Your task to perform on an android device: Go to display settings Image 0: 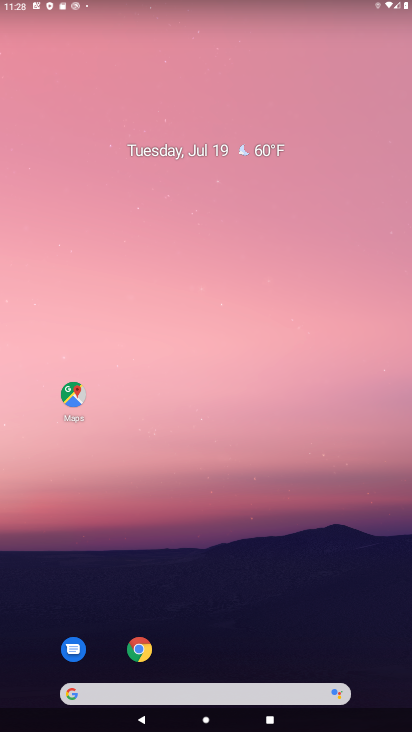
Step 0: drag from (191, 697) to (191, 417)
Your task to perform on an android device: Go to display settings Image 1: 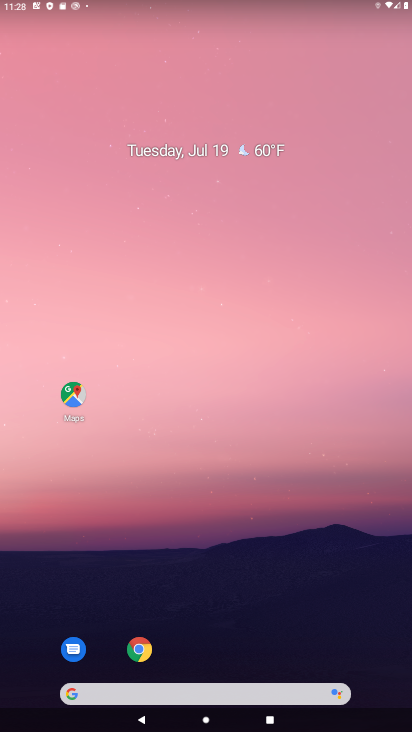
Step 1: drag from (209, 691) to (216, 361)
Your task to perform on an android device: Go to display settings Image 2: 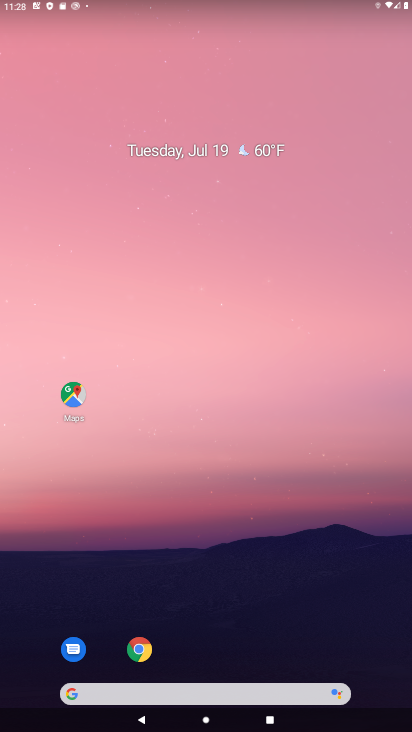
Step 2: drag from (193, 692) to (194, 386)
Your task to perform on an android device: Go to display settings Image 3: 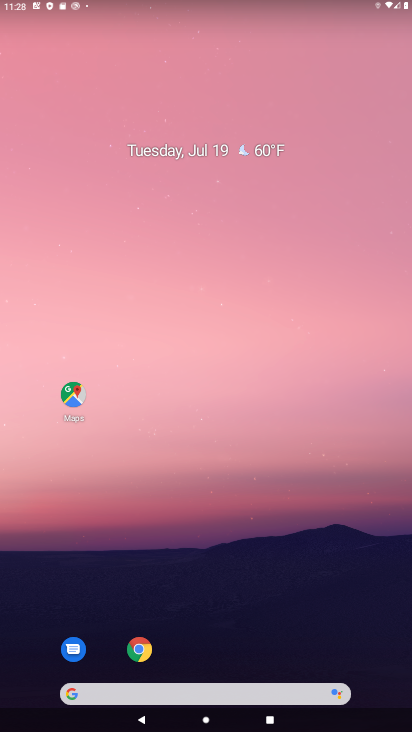
Step 3: drag from (201, 685) to (174, 355)
Your task to perform on an android device: Go to display settings Image 4: 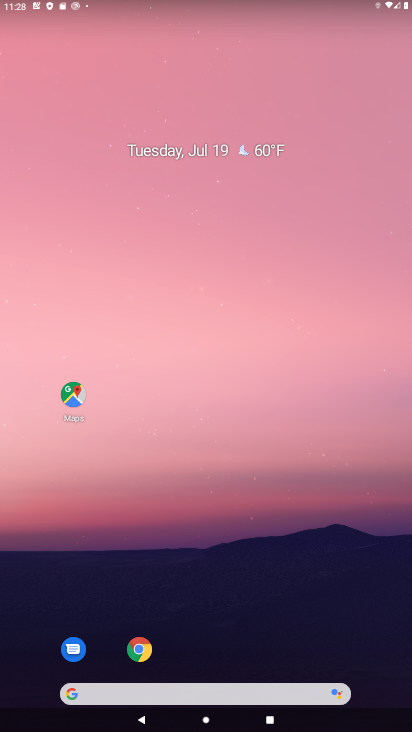
Step 4: drag from (197, 692) to (191, 341)
Your task to perform on an android device: Go to display settings Image 5: 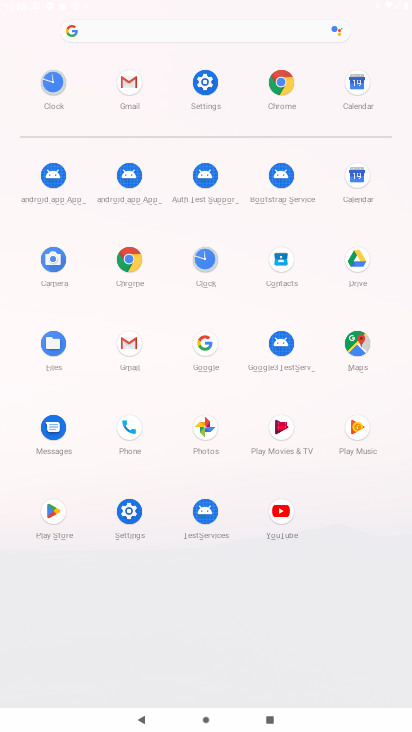
Step 5: click (198, 82)
Your task to perform on an android device: Go to display settings Image 6: 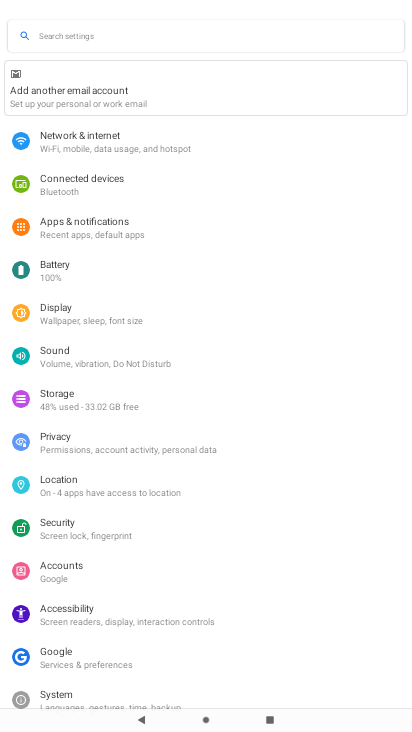
Step 6: click (90, 315)
Your task to perform on an android device: Go to display settings Image 7: 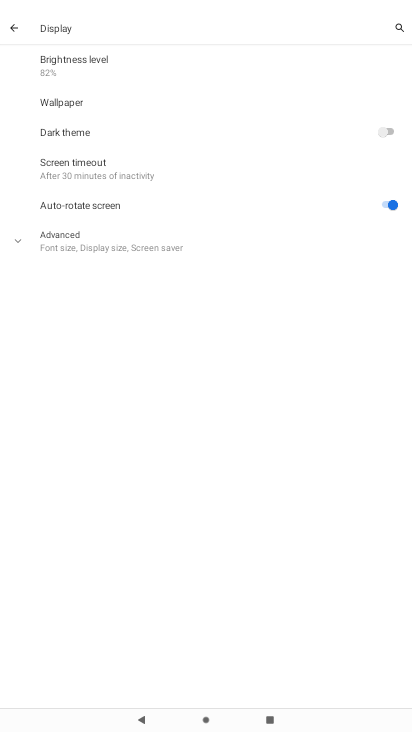
Step 7: task complete